Your task to perform on an android device: See recent photos Image 0: 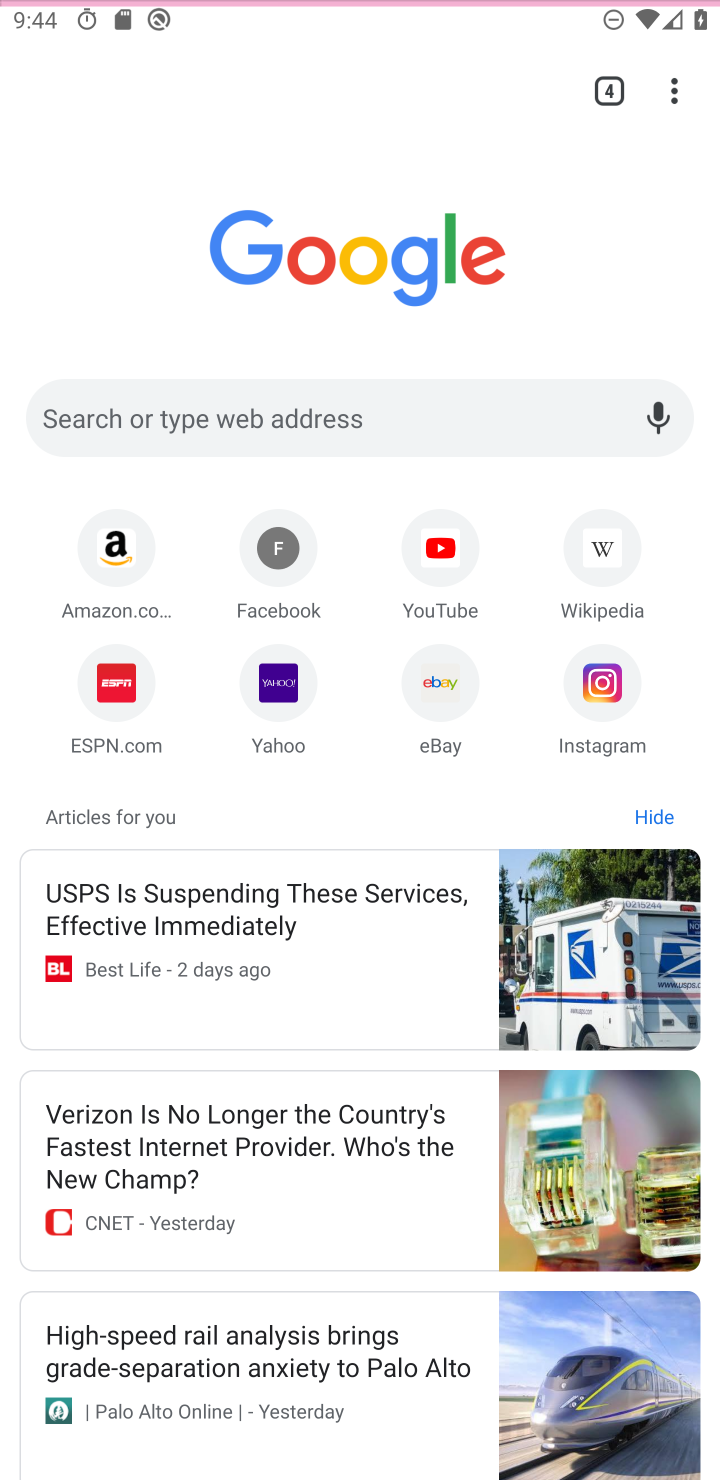
Step 0: press home button
Your task to perform on an android device: See recent photos Image 1: 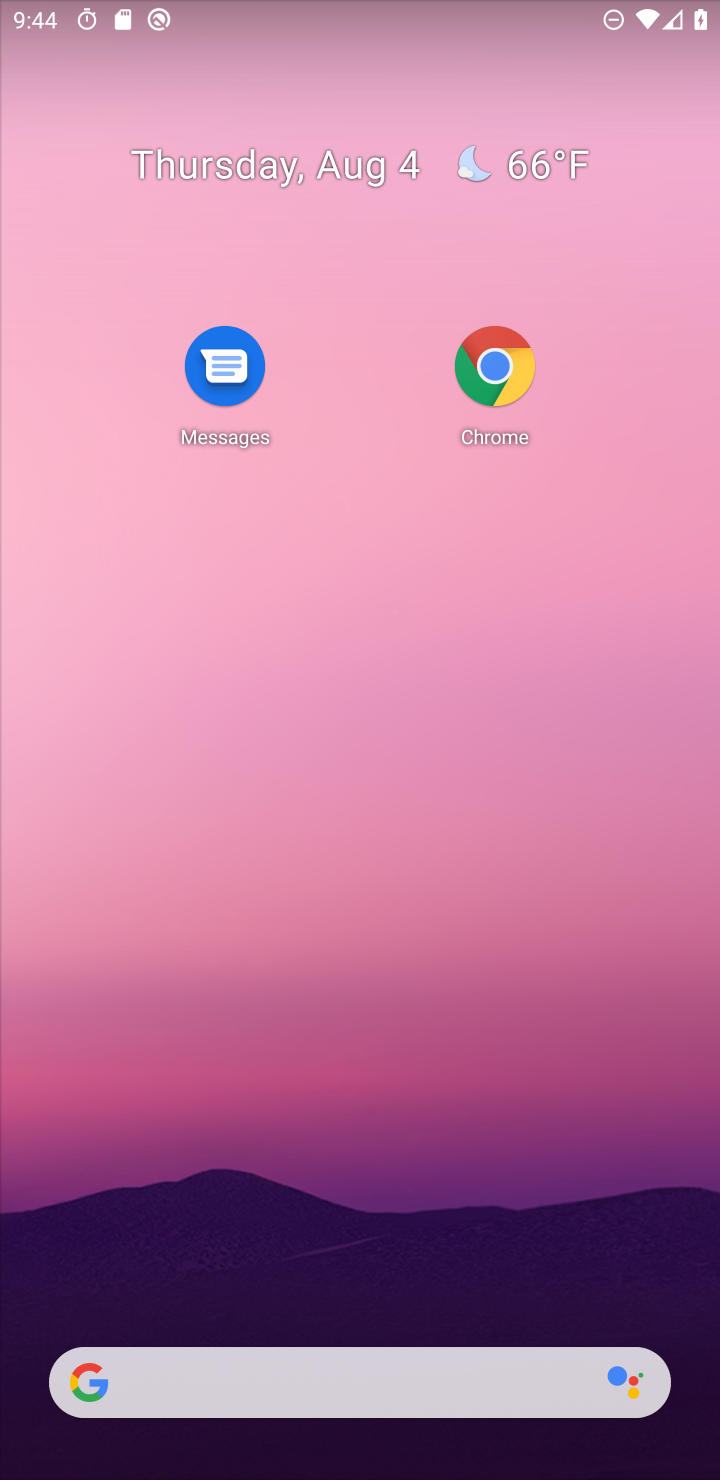
Step 1: drag from (395, 1203) to (431, 422)
Your task to perform on an android device: See recent photos Image 2: 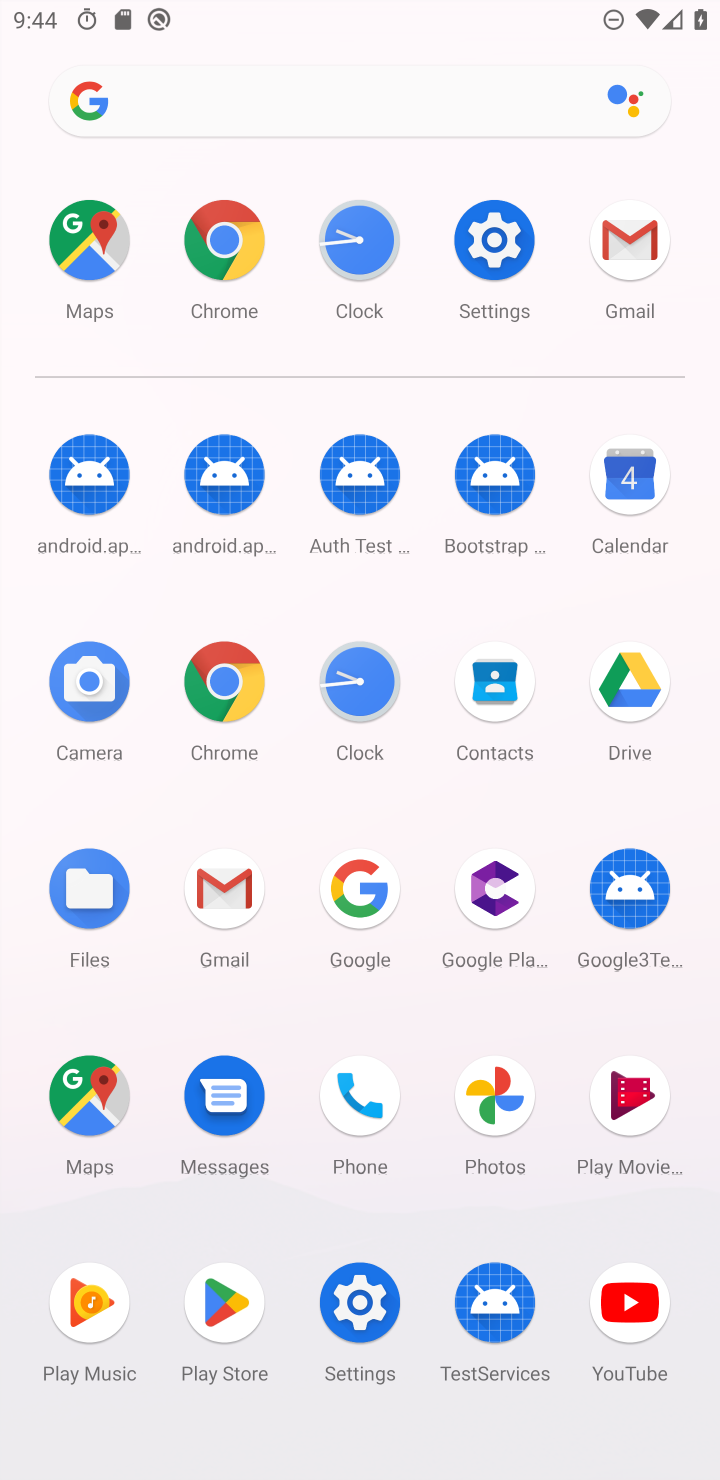
Step 2: click (483, 1099)
Your task to perform on an android device: See recent photos Image 3: 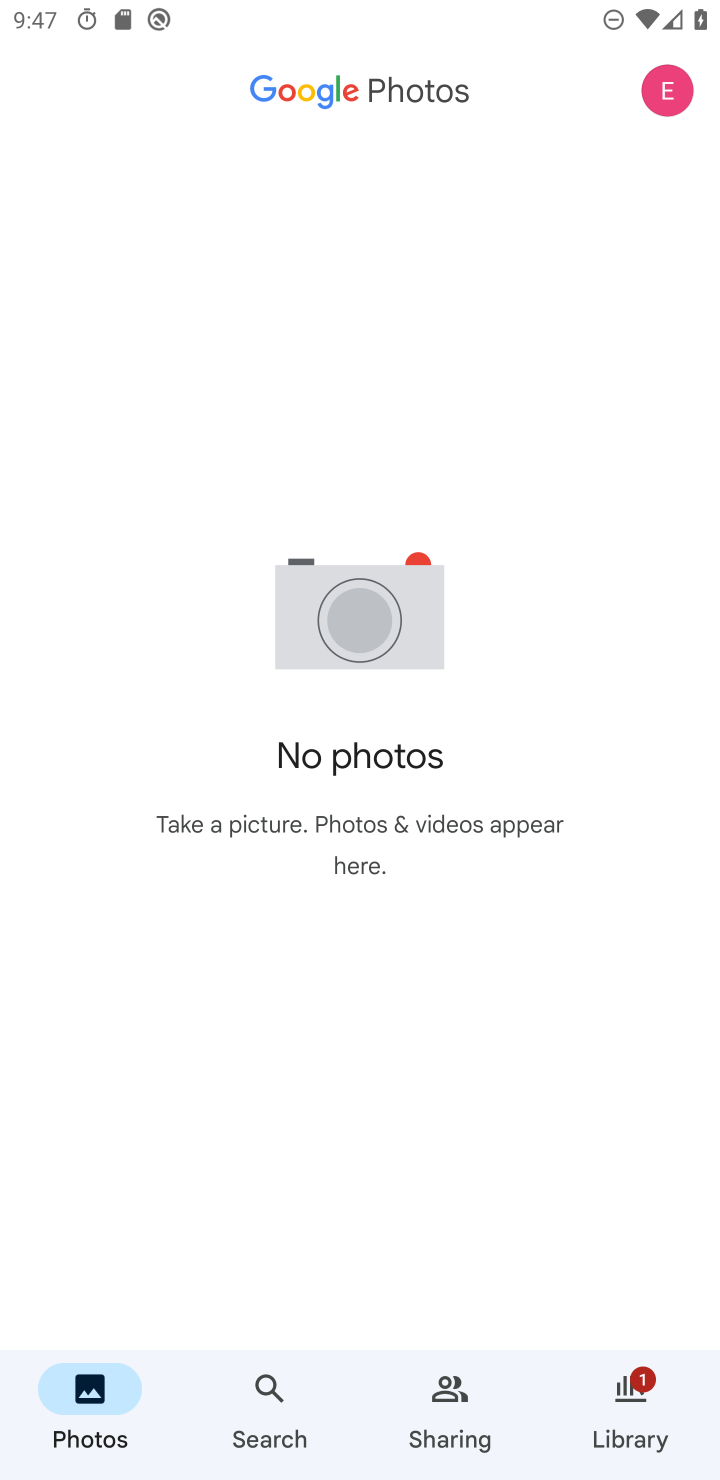
Step 3: task complete